Your task to perform on an android device: turn on the 24-hour format for clock Image 0: 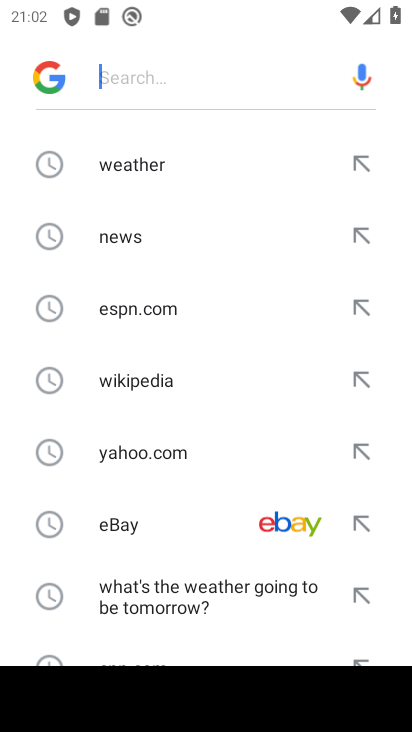
Step 0: press home button
Your task to perform on an android device: turn on the 24-hour format for clock Image 1: 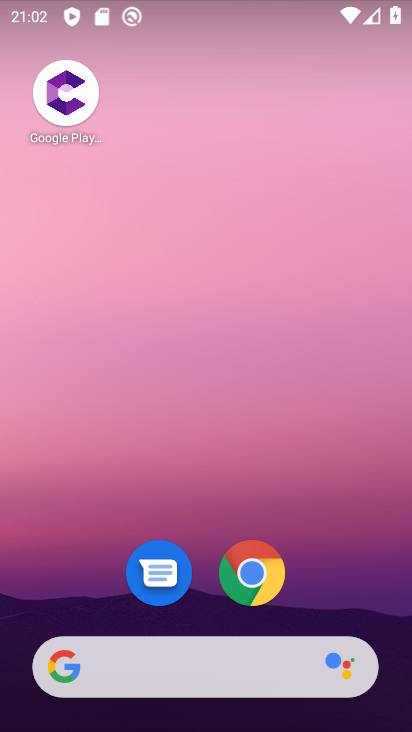
Step 1: drag from (333, 567) to (352, 19)
Your task to perform on an android device: turn on the 24-hour format for clock Image 2: 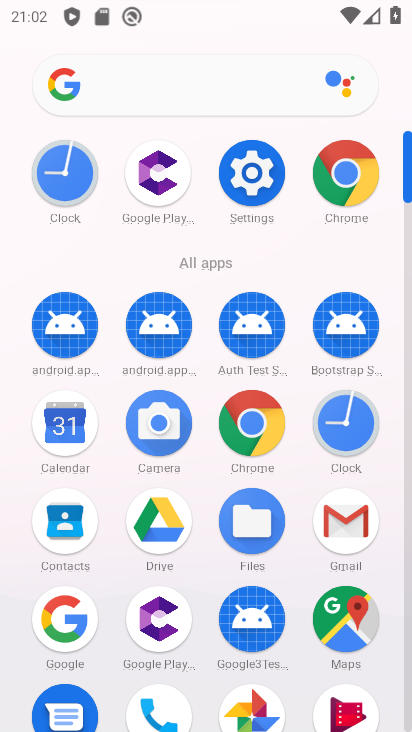
Step 2: click (355, 421)
Your task to perform on an android device: turn on the 24-hour format for clock Image 3: 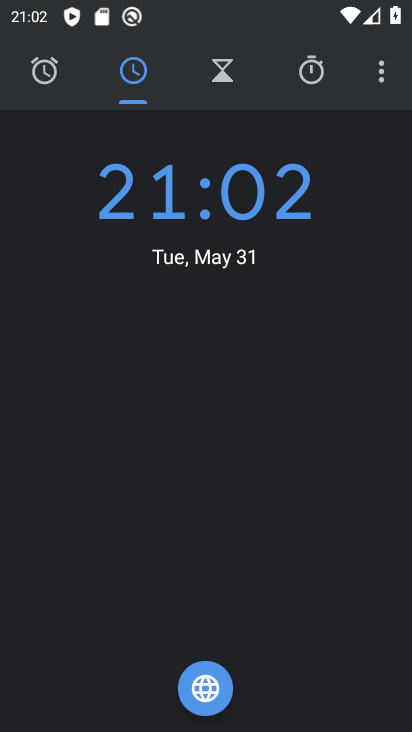
Step 3: click (384, 63)
Your task to perform on an android device: turn on the 24-hour format for clock Image 4: 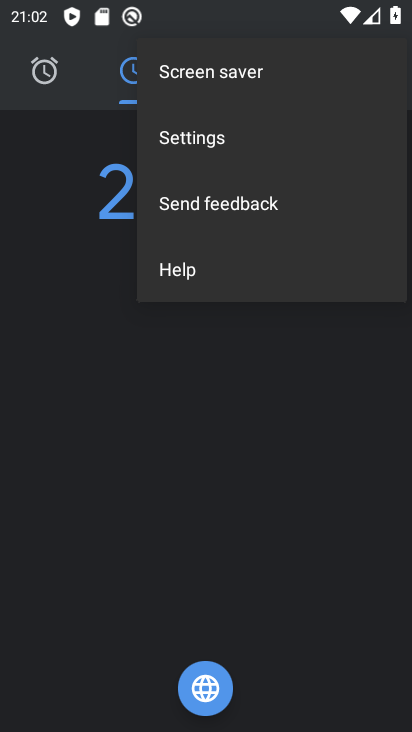
Step 4: click (221, 146)
Your task to perform on an android device: turn on the 24-hour format for clock Image 5: 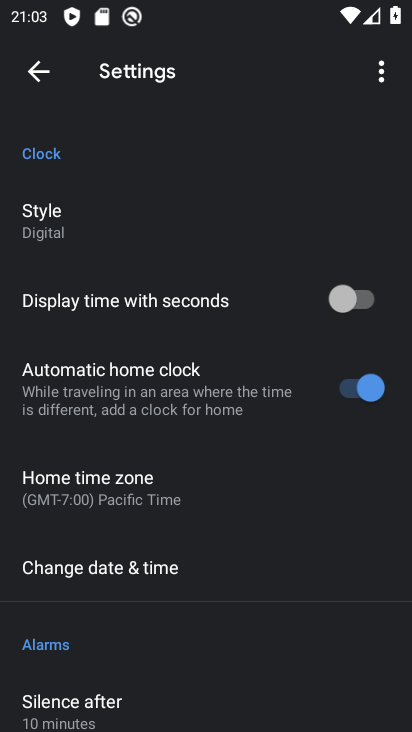
Step 5: drag from (237, 575) to (295, 182)
Your task to perform on an android device: turn on the 24-hour format for clock Image 6: 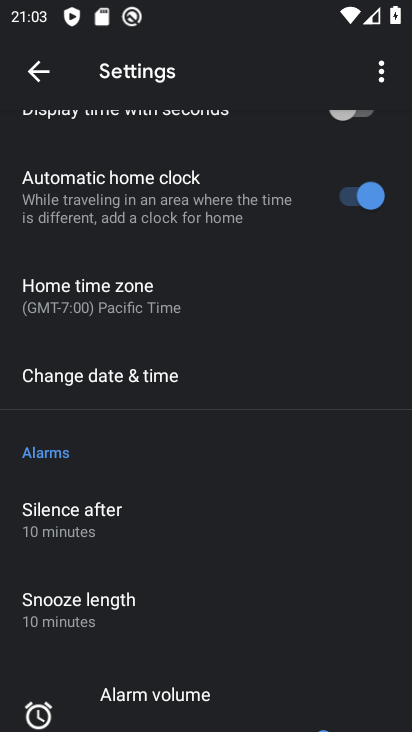
Step 6: click (146, 363)
Your task to perform on an android device: turn on the 24-hour format for clock Image 7: 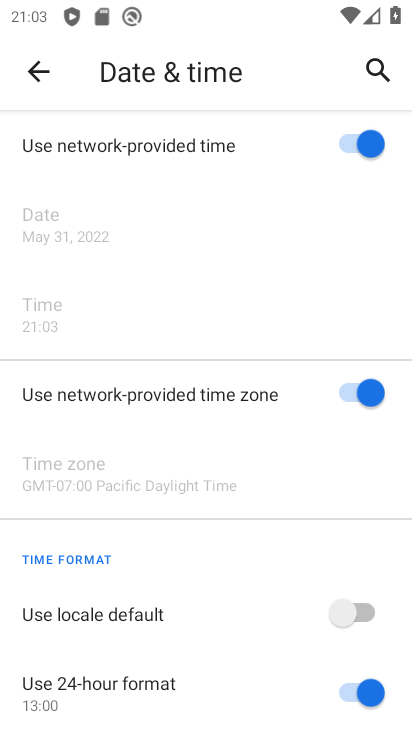
Step 7: task complete